Your task to perform on an android device: add a contact Image 0: 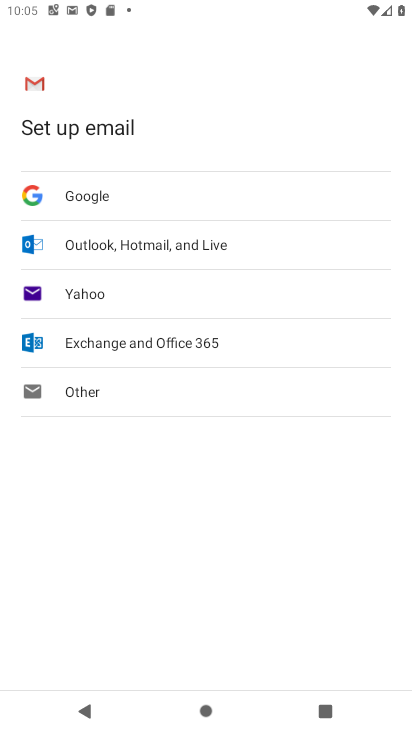
Step 0: press home button
Your task to perform on an android device: add a contact Image 1: 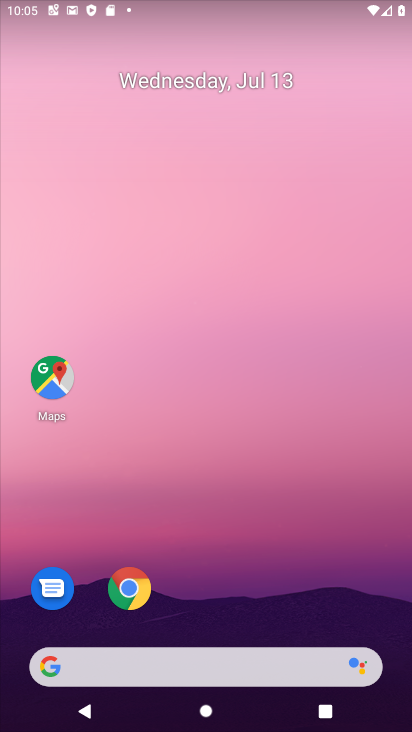
Step 1: drag from (222, 622) to (200, 81)
Your task to perform on an android device: add a contact Image 2: 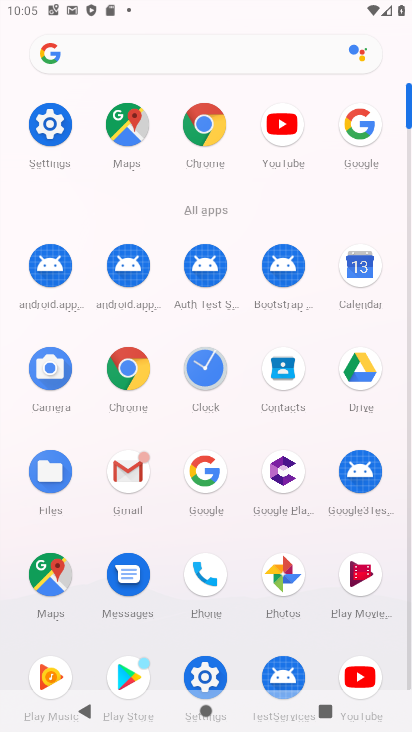
Step 2: click (195, 573)
Your task to perform on an android device: add a contact Image 3: 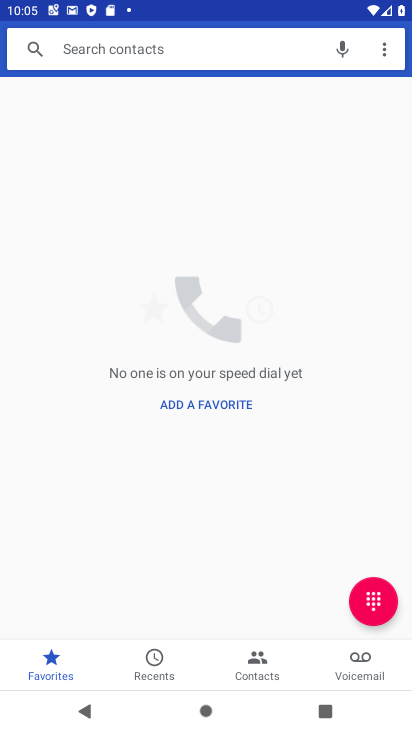
Step 3: click (265, 661)
Your task to perform on an android device: add a contact Image 4: 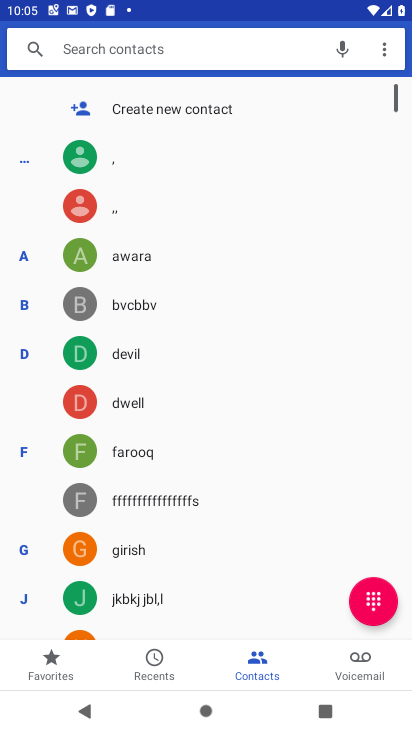
Step 4: click (139, 93)
Your task to perform on an android device: add a contact Image 5: 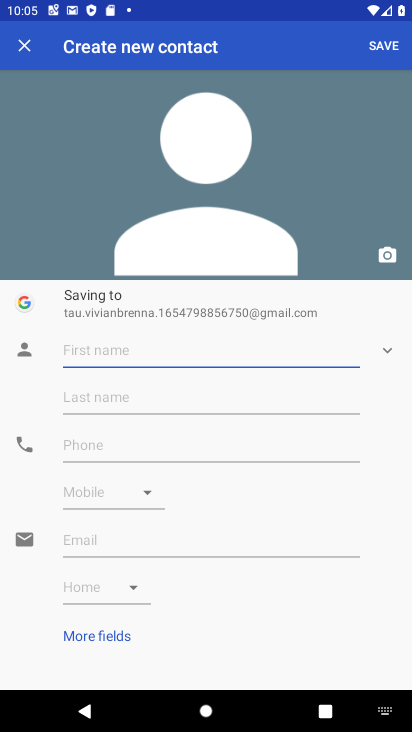
Step 5: type "hh"
Your task to perform on an android device: add a contact Image 6: 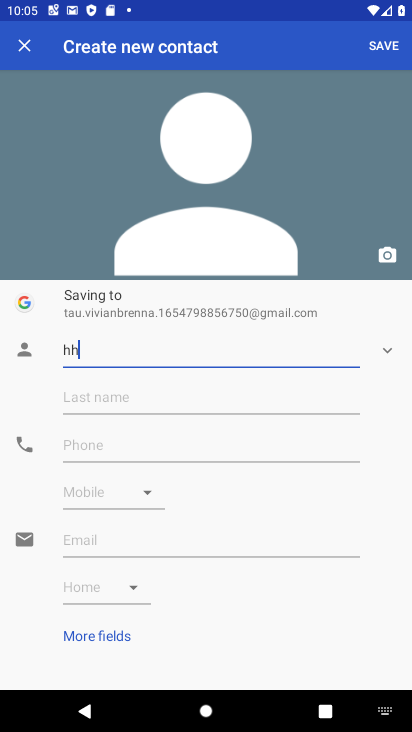
Step 6: type ""
Your task to perform on an android device: add a contact Image 7: 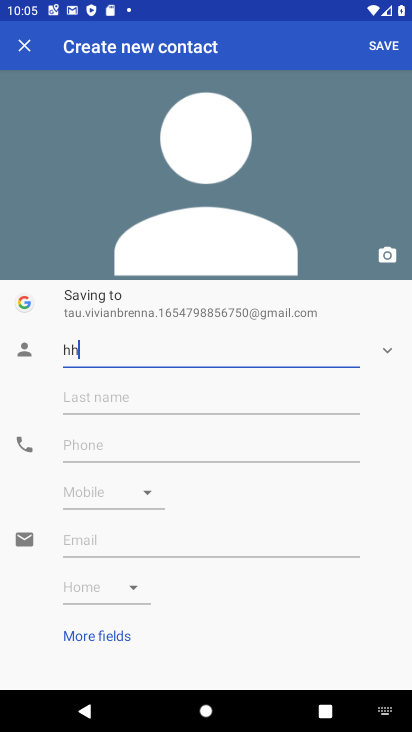
Step 7: click (380, 45)
Your task to perform on an android device: add a contact Image 8: 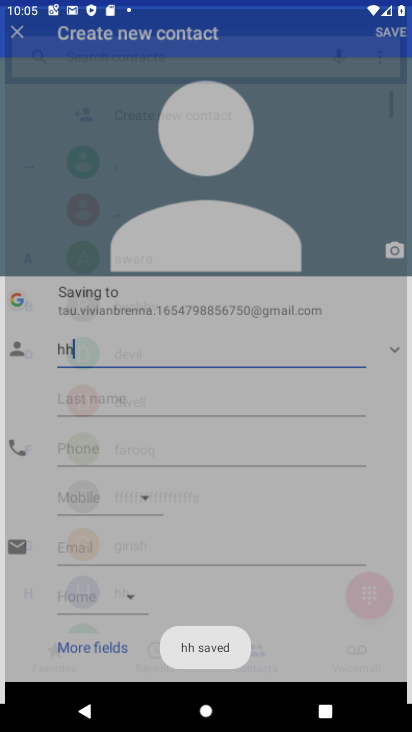
Step 8: task complete